Your task to perform on an android device: toggle pop-ups in chrome Image 0: 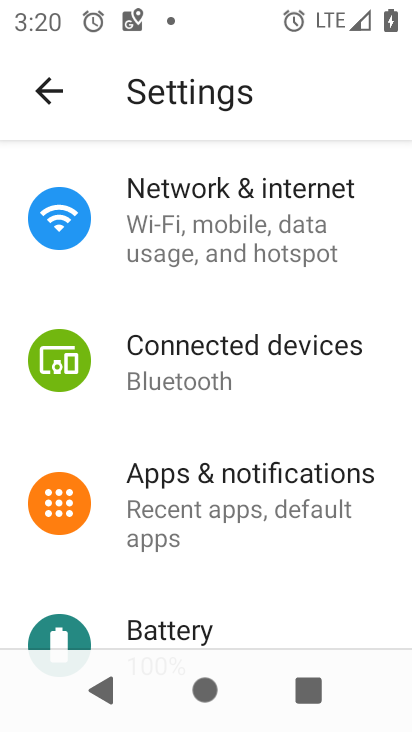
Step 0: press home button
Your task to perform on an android device: toggle pop-ups in chrome Image 1: 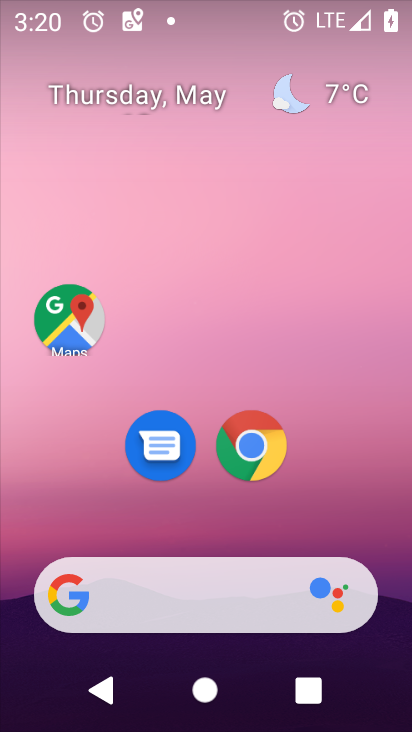
Step 1: click (254, 446)
Your task to perform on an android device: toggle pop-ups in chrome Image 2: 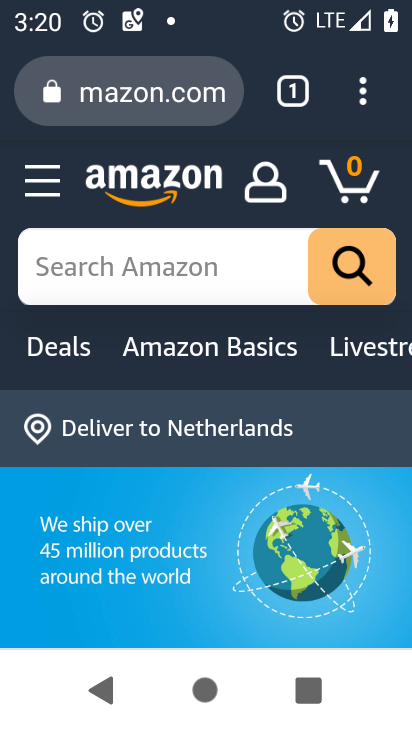
Step 2: drag from (364, 97) to (113, 487)
Your task to perform on an android device: toggle pop-ups in chrome Image 3: 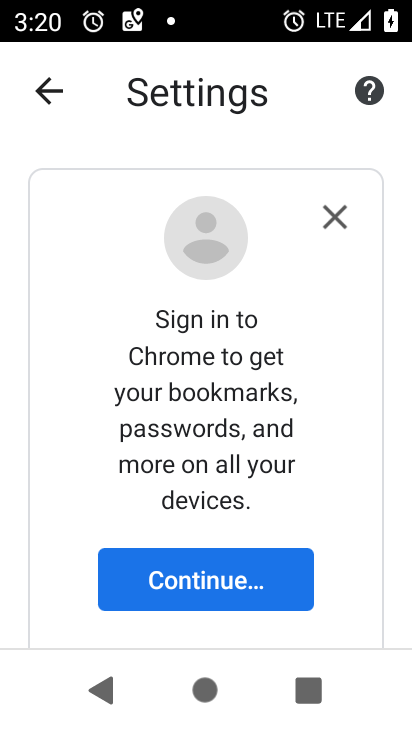
Step 3: drag from (341, 582) to (354, 98)
Your task to perform on an android device: toggle pop-ups in chrome Image 4: 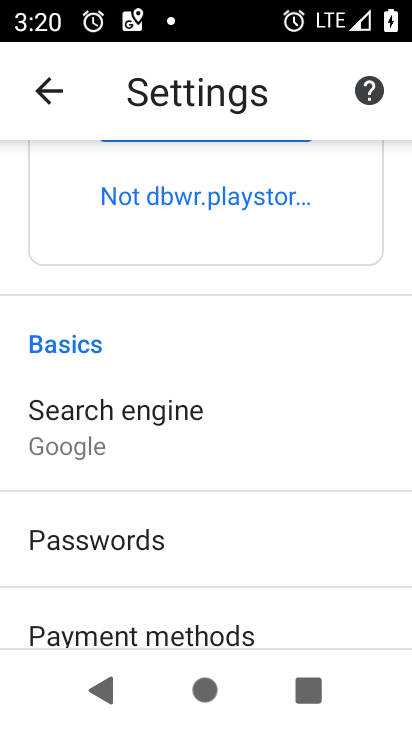
Step 4: drag from (325, 541) to (332, 114)
Your task to perform on an android device: toggle pop-ups in chrome Image 5: 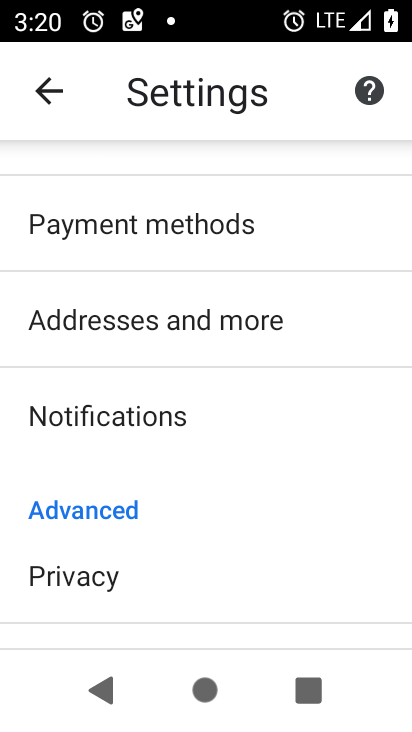
Step 5: drag from (262, 550) to (218, 157)
Your task to perform on an android device: toggle pop-ups in chrome Image 6: 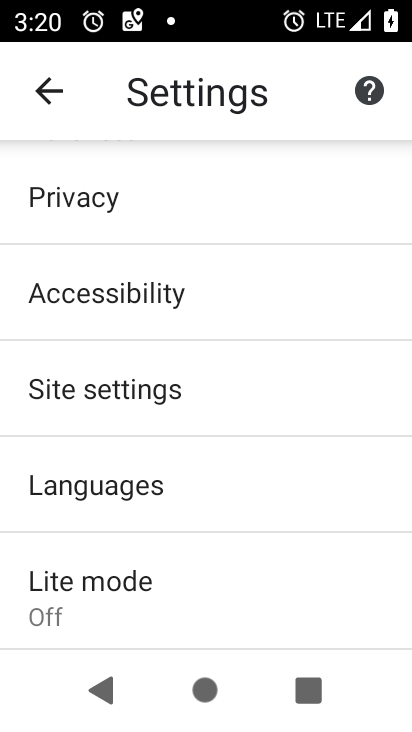
Step 6: click (132, 397)
Your task to perform on an android device: toggle pop-ups in chrome Image 7: 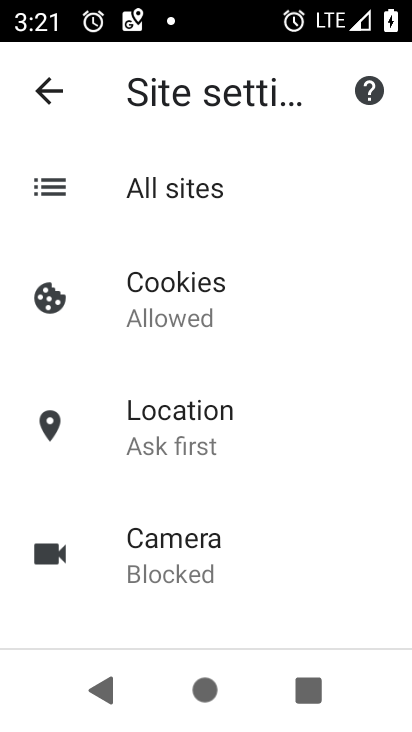
Step 7: drag from (308, 562) to (304, 98)
Your task to perform on an android device: toggle pop-ups in chrome Image 8: 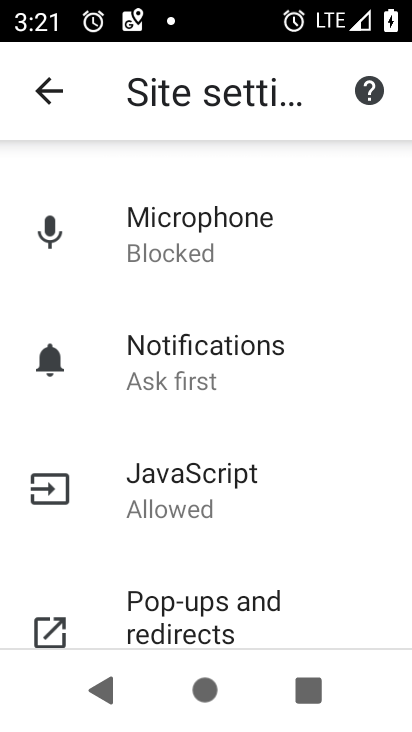
Step 8: click (201, 617)
Your task to perform on an android device: toggle pop-ups in chrome Image 9: 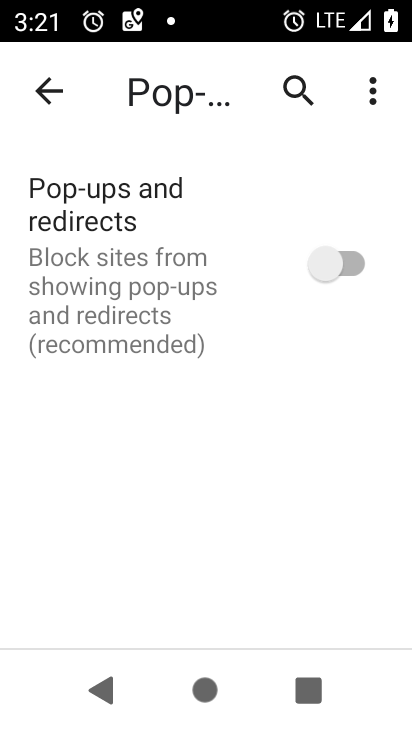
Step 9: click (328, 266)
Your task to perform on an android device: toggle pop-ups in chrome Image 10: 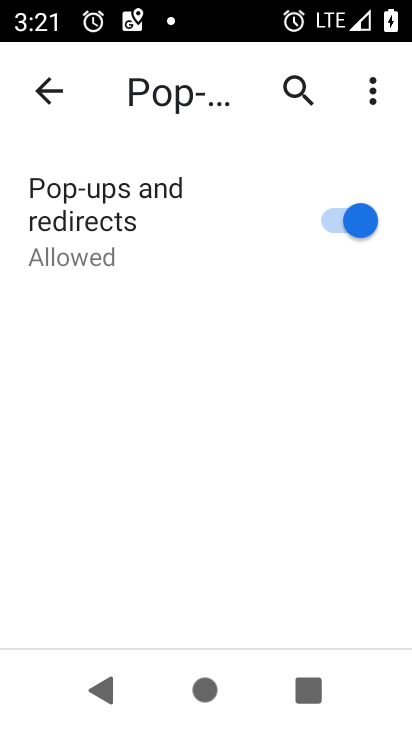
Step 10: task complete